Your task to perform on an android device: toggle priority inbox in the gmail app Image 0: 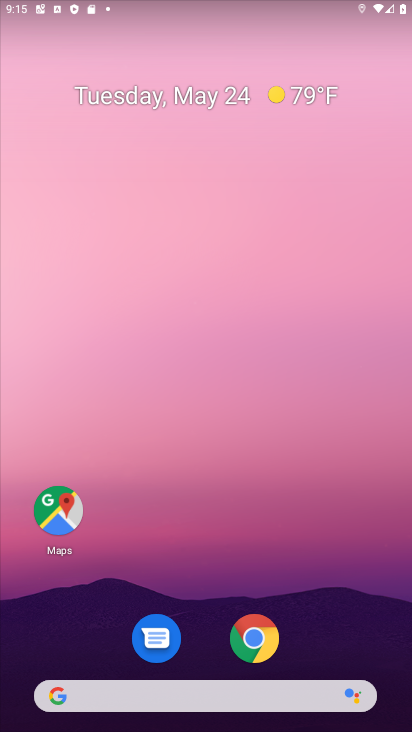
Step 0: drag from (230, 728) to (264, 118)
Your task to perform on an android device: toggle priority inbox in the gmail app Image 1: 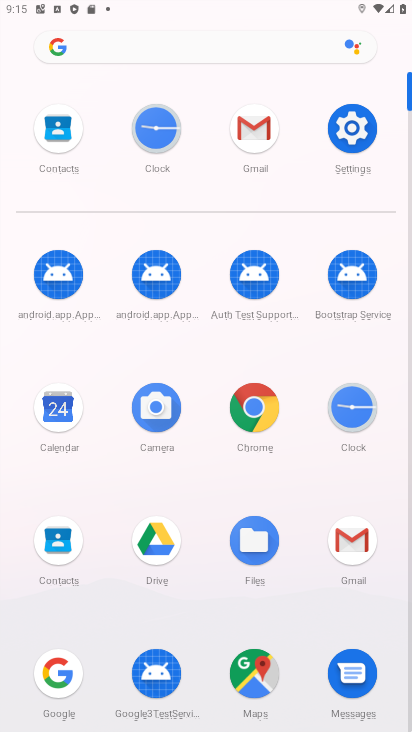
Step 1: click (362, 554)
Your task to perform on an android device: toggle priority inbox in the gmail app Image 2: 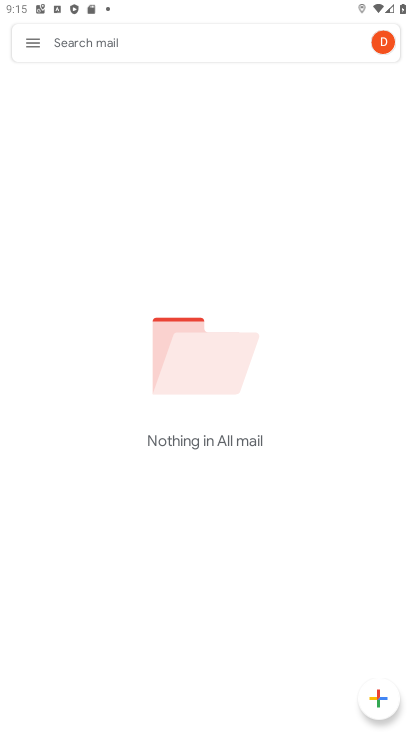
Step 2: click (29, 45)
Your task to perform on an android device: toggle priority inbox in the gmail app Image 3: 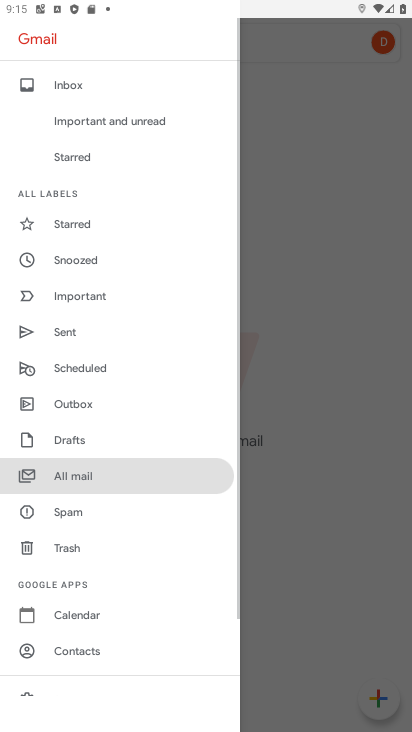
Step 3: drag from (87, 637) to (121, 88)
Your task to perform on an android device: toggle priority inbox in the gmail app Image 4: 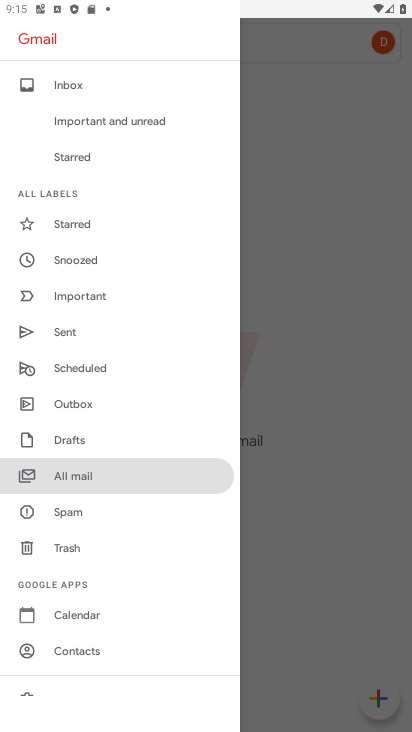
Step 4: drag from (101, 574) to (160, 42)
Your task to perform on an android device: toggle priority inbox in the gmail app Image 5: 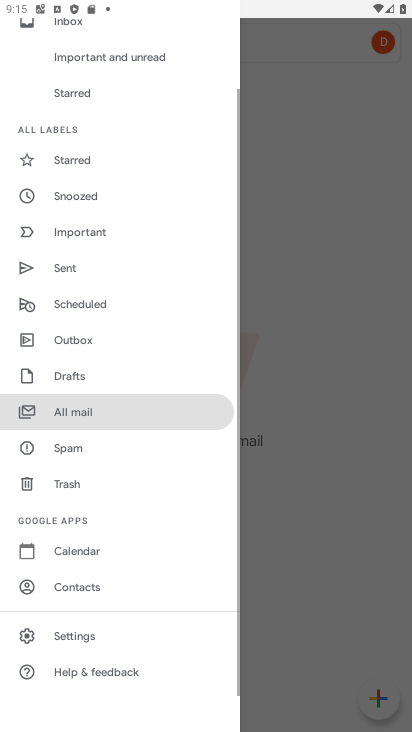
Step 5: click (62, 640)
Your task to perform on an android device: toggle priority inbox in the gmail app Image 6: 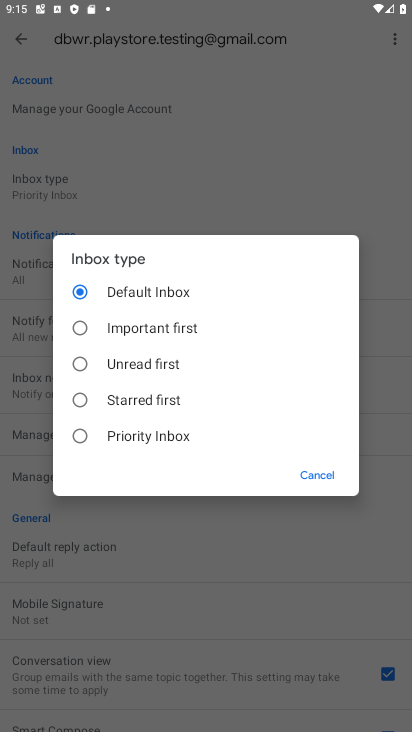
Step 6: click (318, 473)
Your task to perform on an android device: toggle priority inbox in the gmail app Image 7: 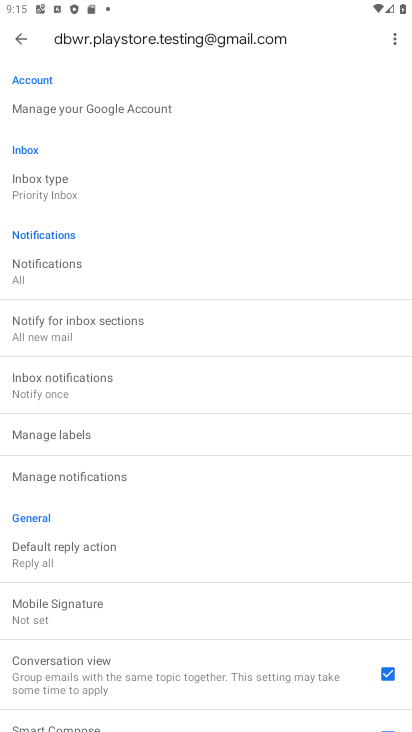
Step 7: click (75, 181)
Your task to perform on an android device: toggle priority inbox in the gmail app Image 8: 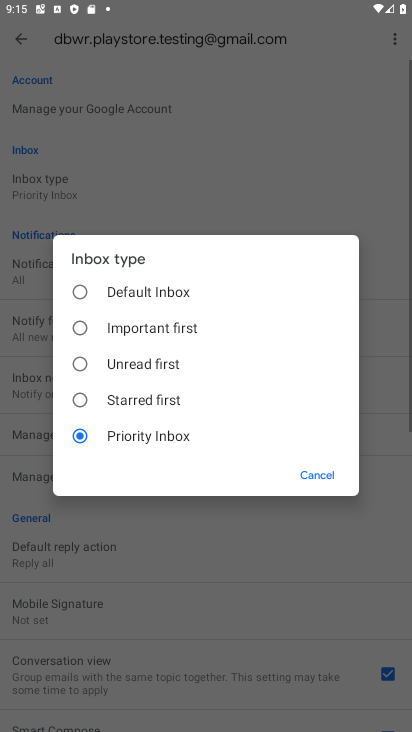
Step 8: click (120, 286)
Your task to perform on an android device: toggle priority inbox in the gmail app Image 9: 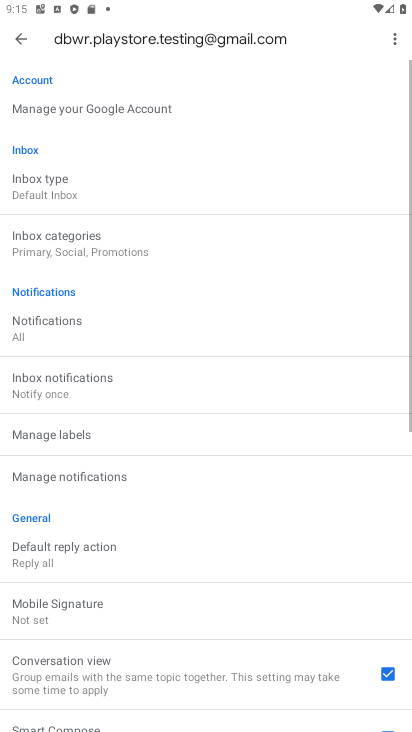
Step 9: task complete